Your task to perform on an android device: open the mobile data screen to see how much data has been used Image 0: 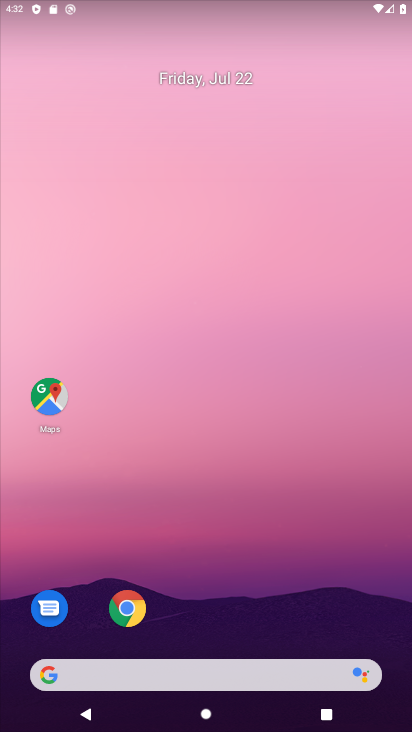
Step 0: drag from (259, 12) to (250, 669)
Your task to perform on an android device: open the mobile data screen to see how much data has been used Image 1: 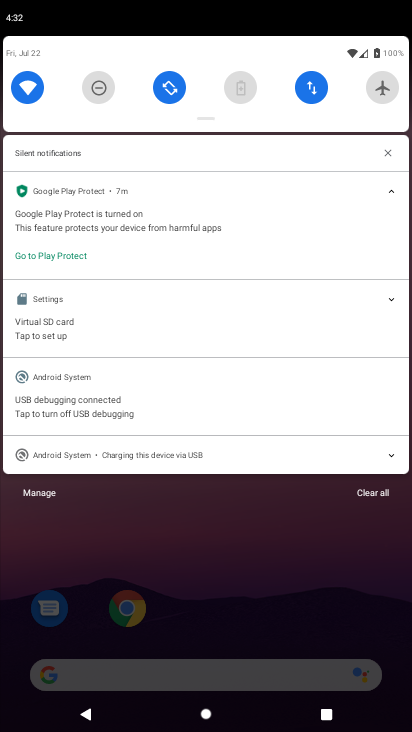
Step 1: click (317, 79)
Your task to perform on an android device: open the mobile data screen to see how much data has been used Image 2: 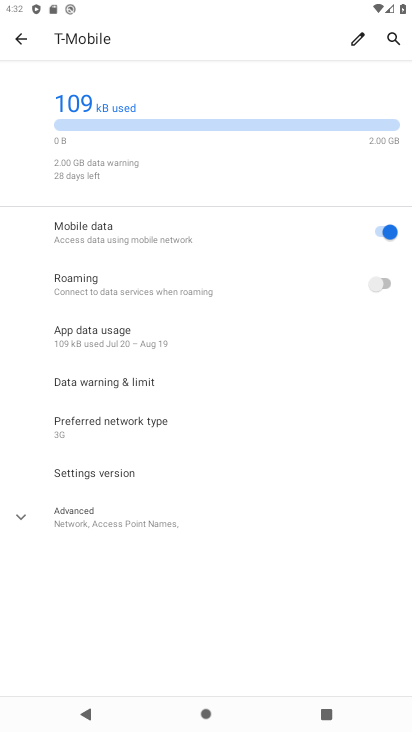
Step 2: task complete